Your task to perform on an android device: open chrome and create a bookmark for the current page Image 0: 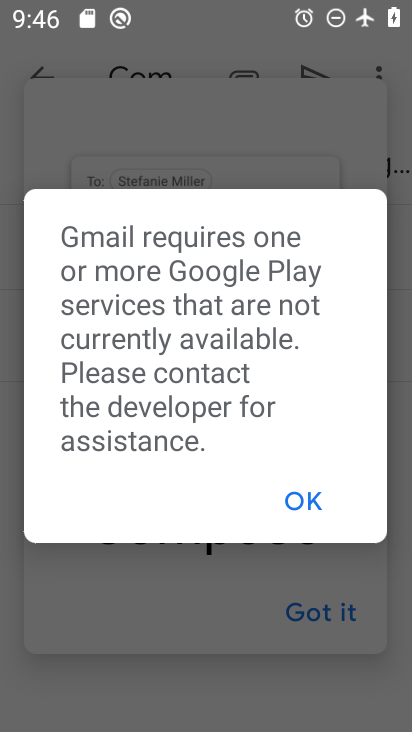
Step 0: press home button
Your task to perform on an android device: open chrome and create a bookmark for the current page Image 1: 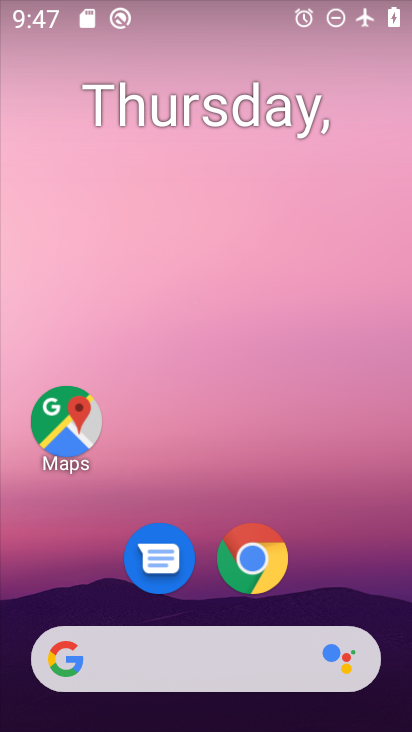
Step 1: click (249, 559)
Your task to perform on an android device: open chrome and create a bookmark for the current page Image 2: 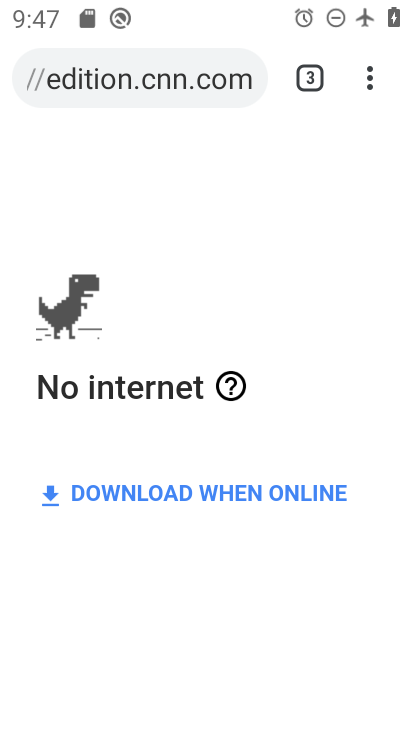
Step 2: click (374, 72)
Your task to perform on an android device: open chrome and create a bookmark for the current page Image 3: 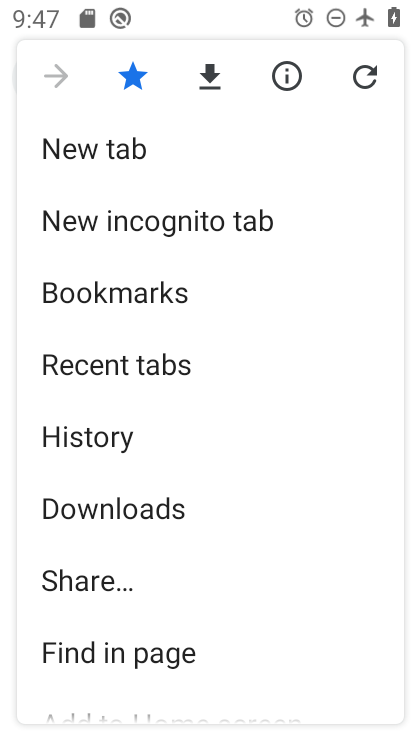
Step 3: task complete